Your task to perform on an android device: Open Yahoo.com Image 0: 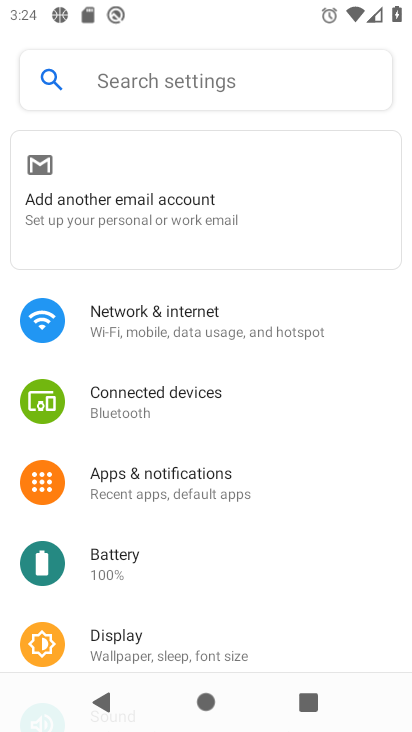
Step 0: press back button
Your task to perform on an android device: Open Yahoo.com Image 1: 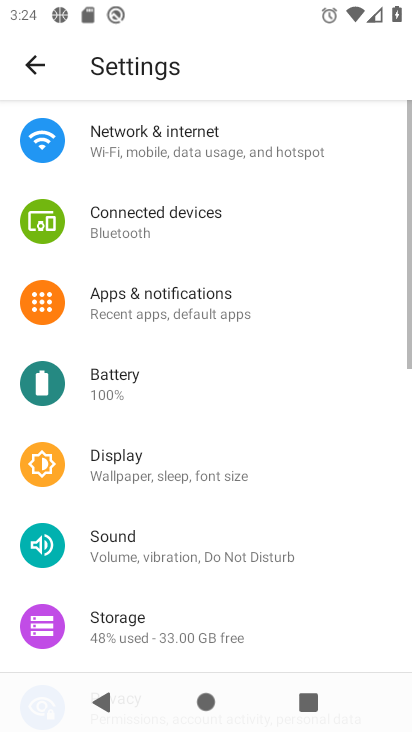
Step 1: press back button
Your task to perform on an android device: Open Yahoo.com Image 2: 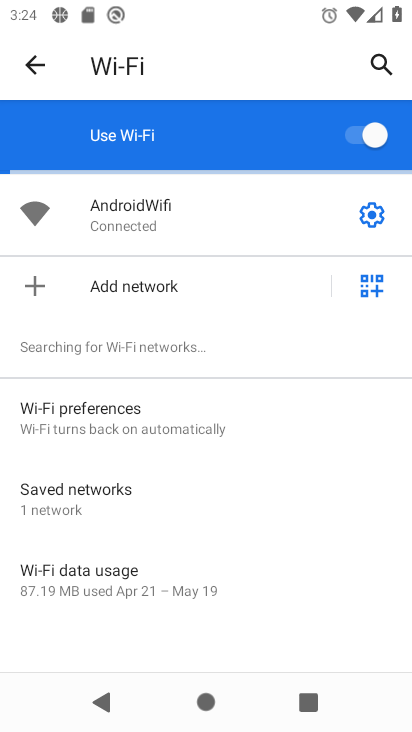
Step 2: press back button
Your task to perform on an android device: Open Yahoo.com Image 3: 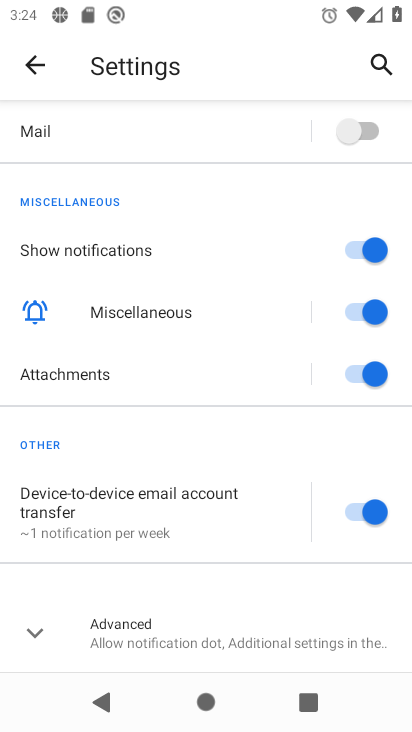
Step 3: press home button
Your task to perform on an android device: Open Yahoo.com Image 4: 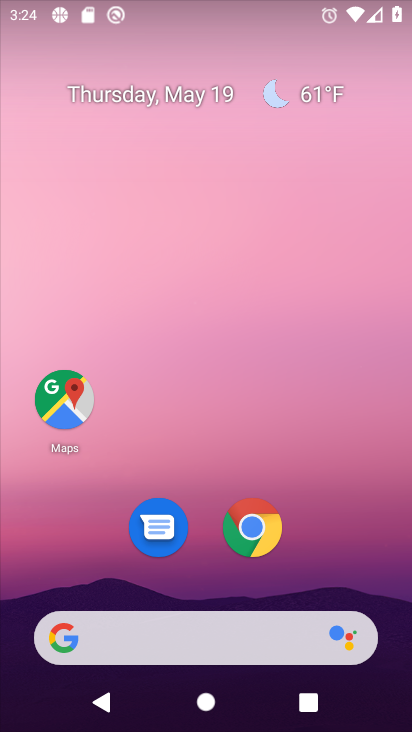
Step 4: click (245, 514)
Your task to perform on an android device: Open Yahoo.com Image 5: 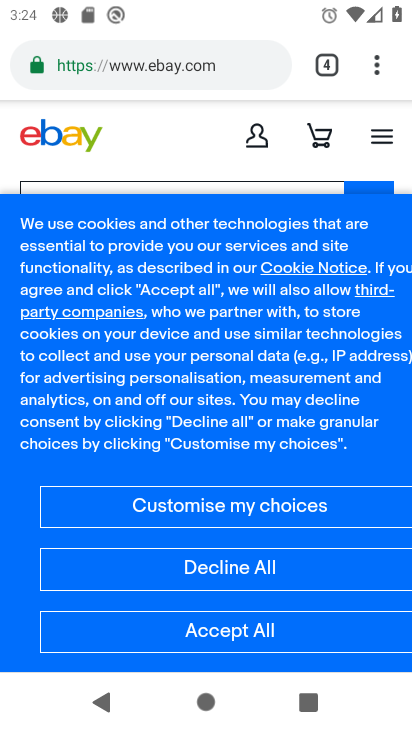
Step 5: click (330, 60)
Your task to perform on an android device: Open Yahoo.com Image 6: 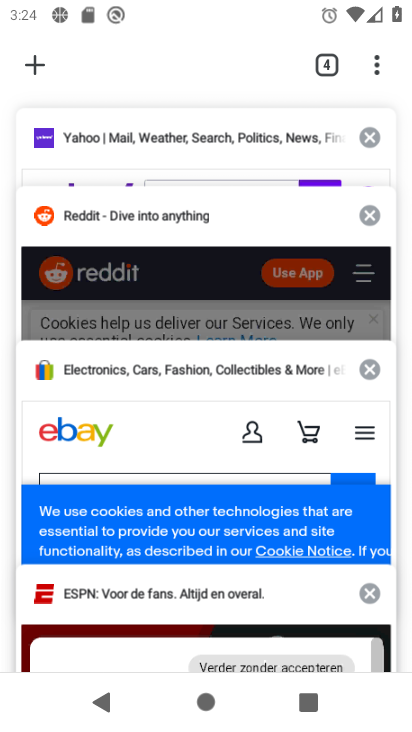
Step 6: click (94, 147)
Your task to perform on an android device: Open Yahoo.com Image 7: 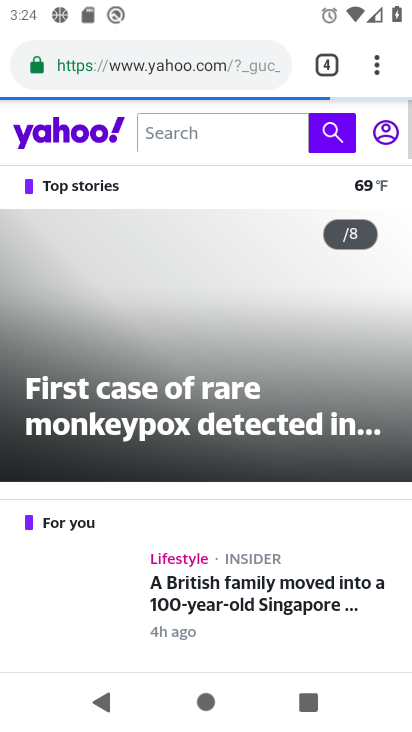
Step 7: task complete